Your task to perform on an android device: open chrome and create a bookmark for the current page Image 0: 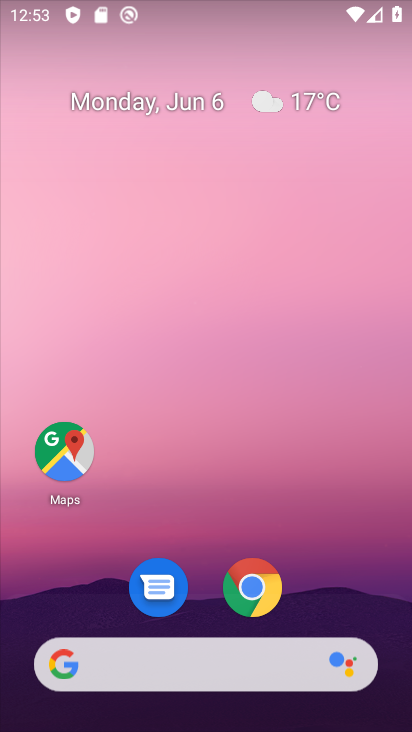
Step 0: click (251, 582)
Your task to perform on an android device: open chrome and create a bookmark for the current page Image 1: 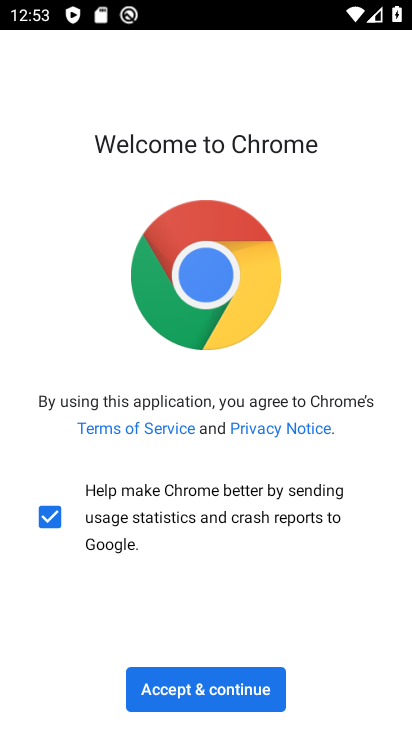
Step 1: click (242, 689)
Your task to perform on an android device: open chrome and create a bookmark for the current page Image 2: 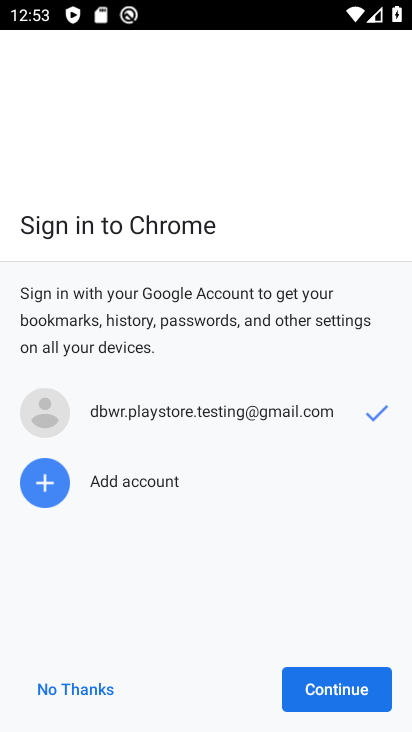
Step 2: click (374, 695)
Your task to perform on an android device: open chrome and create a bookmark for the current page Image 3: 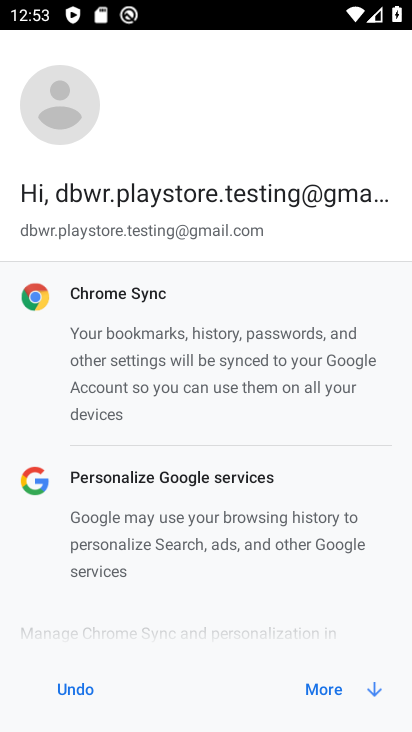
Step 3: click (370, 695)
Your task to perform on an android device: open chrome and create a bookmark for the current page Image 4: 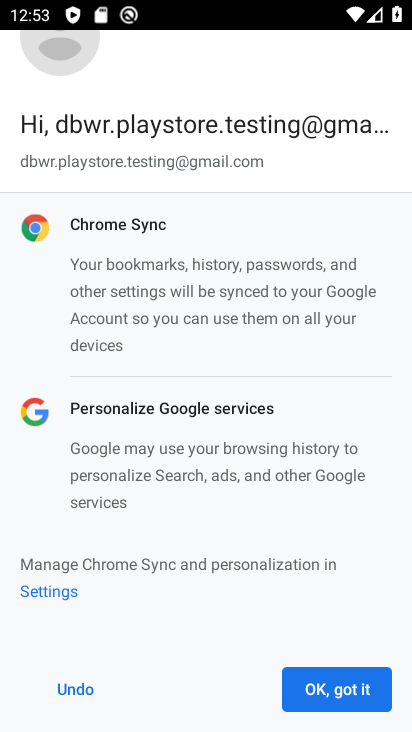
Step 4: click (370, 695)
Your task to perform on an android device: open chrome and create a bookmark for the current page Image 5: 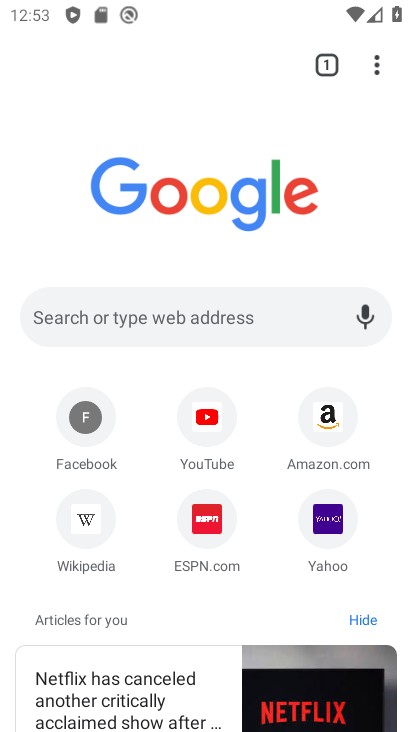
Step 5: click (385, 61)
Your task to perform on an android device: open chrome and create a bookmark for the current page Image 6: 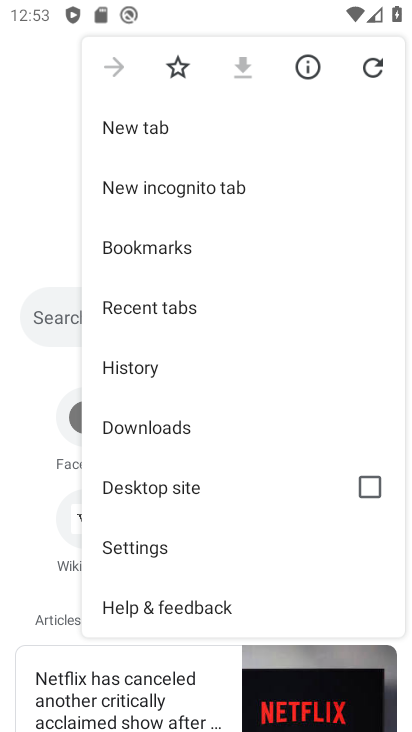
Step 6: click (171, 65)
Your task to perform on an android device: open chrome and create a bookmark for the current page Image 7: 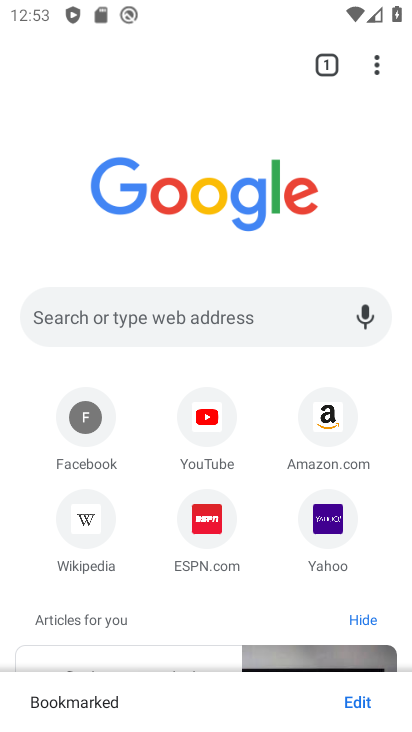
Step 7: task complete